Your task to perform on an android device: change alarm snooze length Image 0: 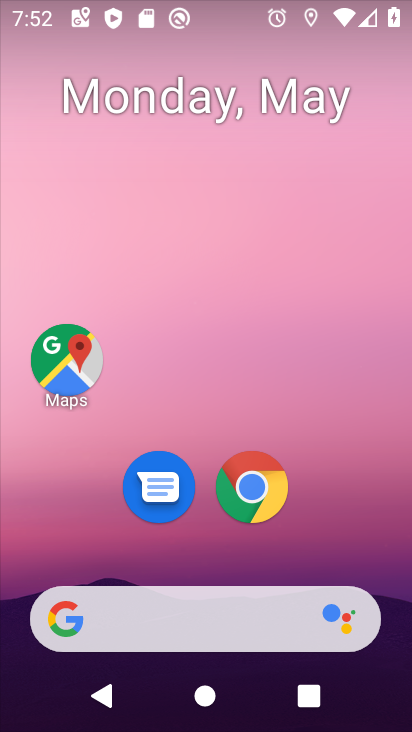
Step 0: press home button
Your task to perform on an android device: change alarm snooze length Image 1: 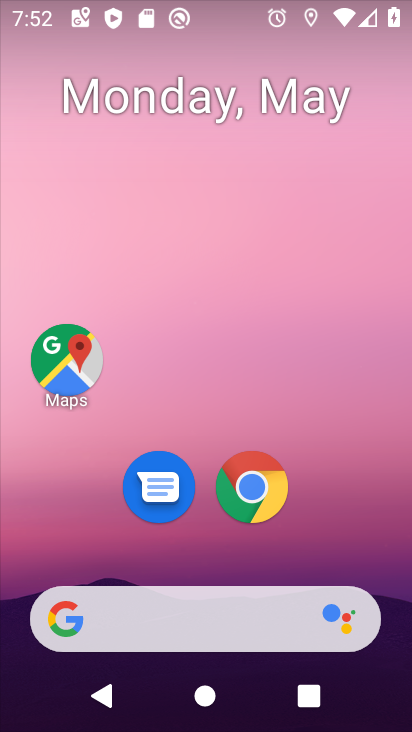
Step 1: drag from (339, 556) to (344, 72)
Your task to perform on an android device: change alarm snooze length Image 2: 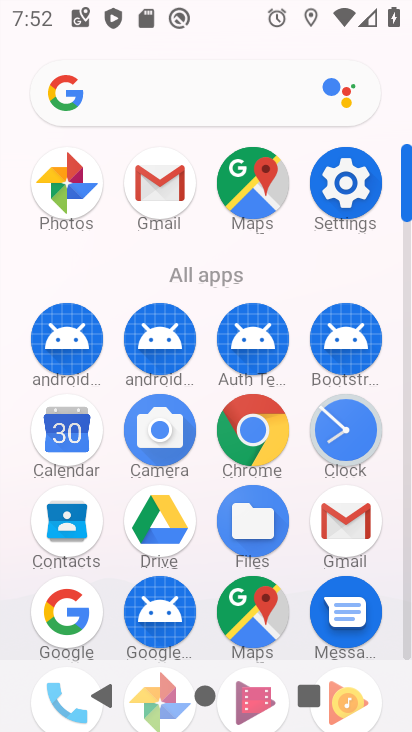
Step 2: click (359, 422)
Your task to perform on an android device: change alarm snooze length Image 3: 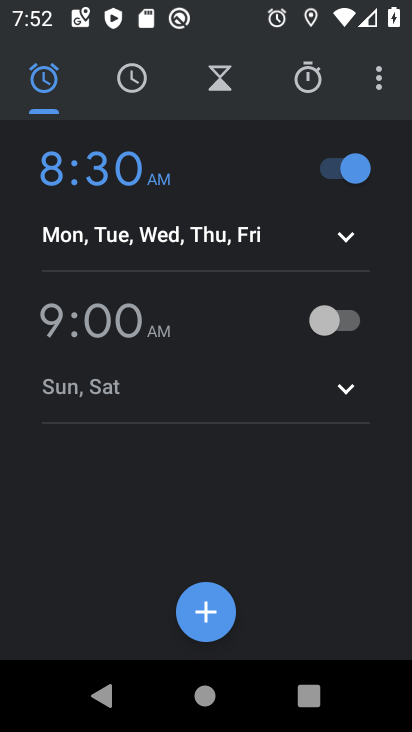
Step 3: click (375, 86)
Your task to perform on an android device: change alarm snooze length Image 4: 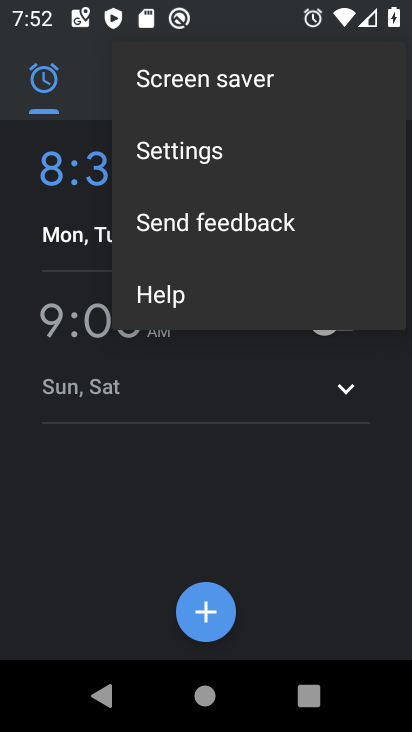
Step 4: click (202, 156)
Your task to perform on an android device: change alarm snooze length Image 5: 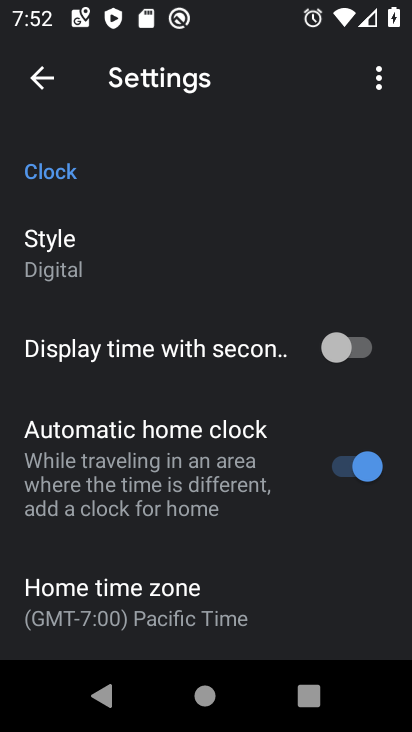
Step 5: drag from (289, 558) to (253, 212)
Your task to perform on an android device: change alarm snooze length Image 6: 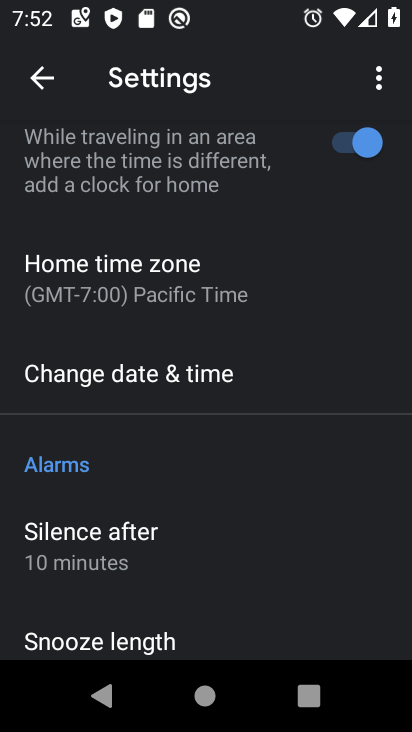
Step 6: drag from (278, 522) to (285, 313)
Your task to perform on an android device: change alarm snooze length Image 7: 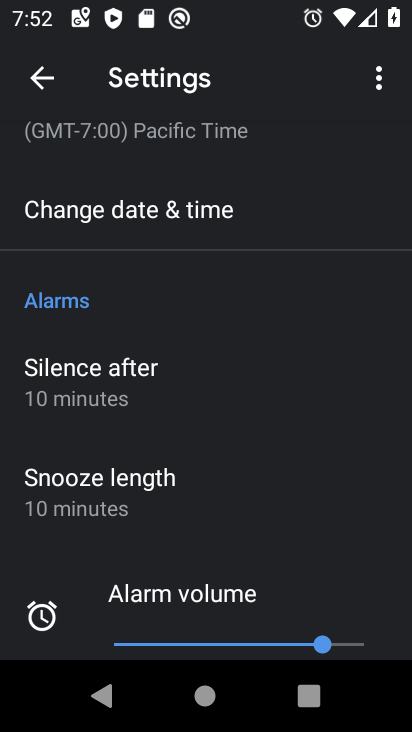
Step 7: click (100, 476)
Your task to perform on an android device: change alarm snooze length Image 8: 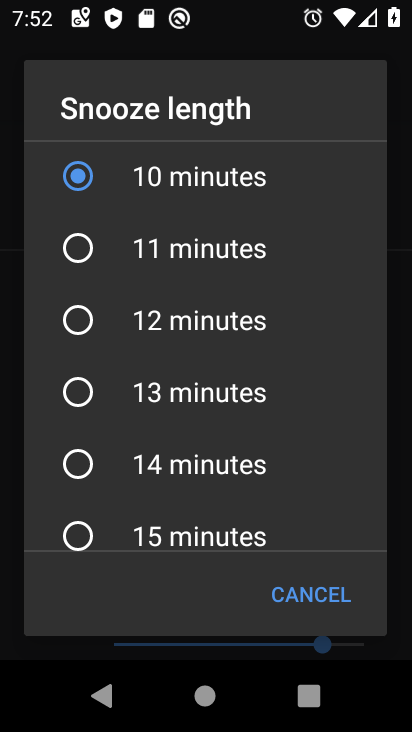
Step 8: click (77, 331)
Your task to perform on an android device: change alarm snooze length Image 9: 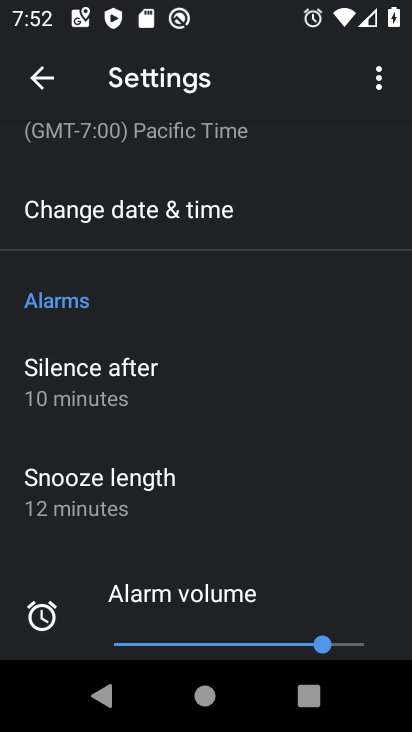
Step 9: task complete